Your task to perform on an android device: snooze an email in the gmail app Image 0: 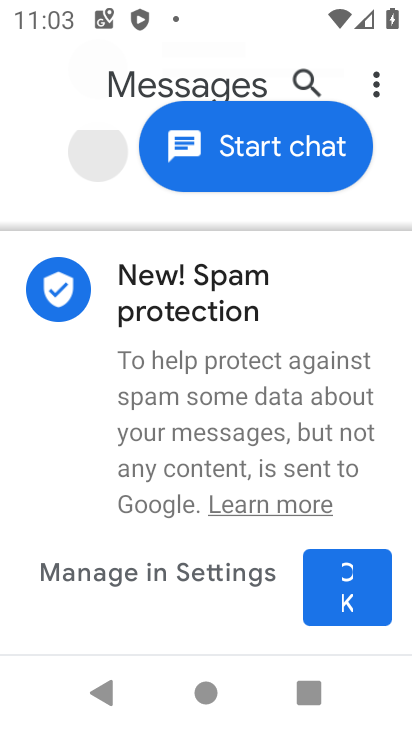
Step 0: press home button
Your task to perform on an android device: snooze an email in the gmail app Image 1: 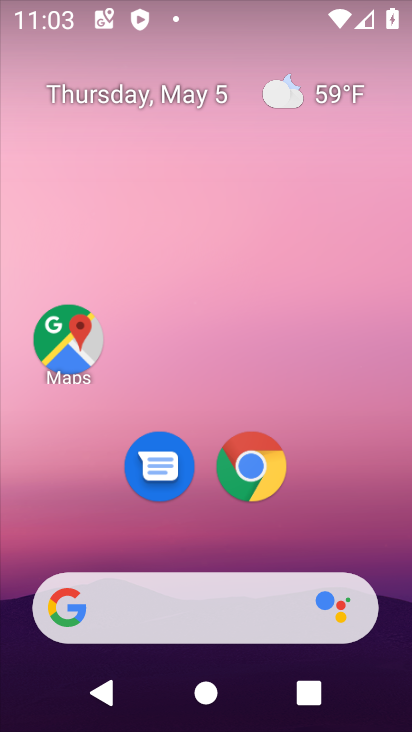
Step 1: drag from (342, 490) to (284, 128)
Your task to perform on an android device: snooze an email in the gmail app Image 2: 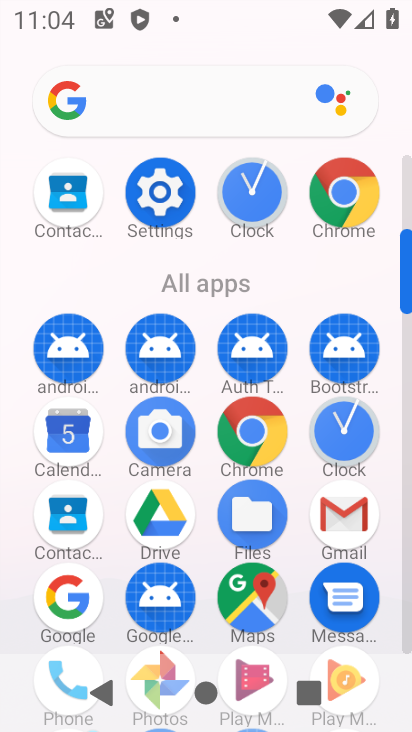
Step 2: click (219, 591)
Your task to perform on an android device: snooze an email in the gmail app Image 3: 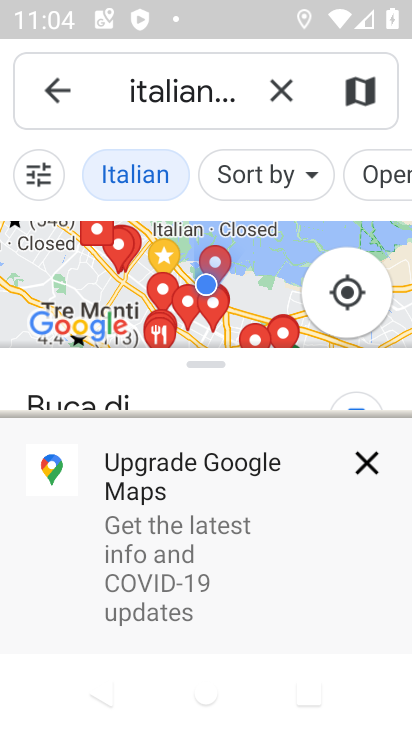
Step 3: press home button
Your task to perform on an android device: snooze an email in the gmail app Image 4: 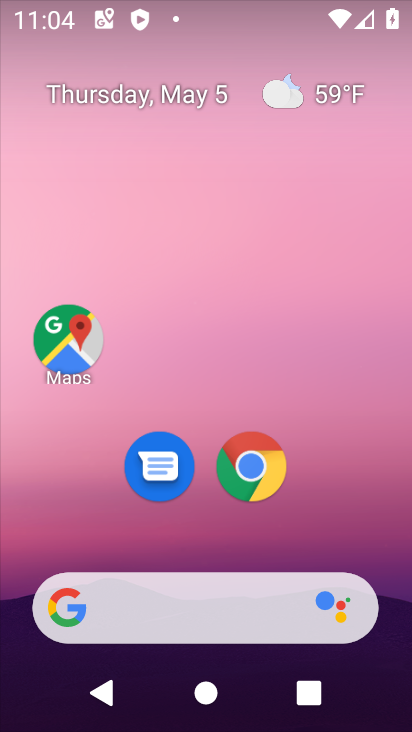
Step 4: drag from (319, 563) to (286, 399)
Your task to perform on an android device: snooze an email in the gmail app Image 5: 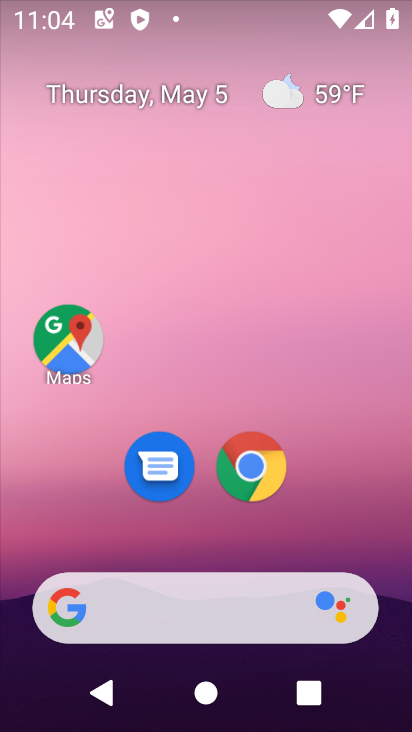
Step 5: drag from (281, 541) to (261, 86)
Your task to perform on an android device: snooze an email in the gmail app Image 6: 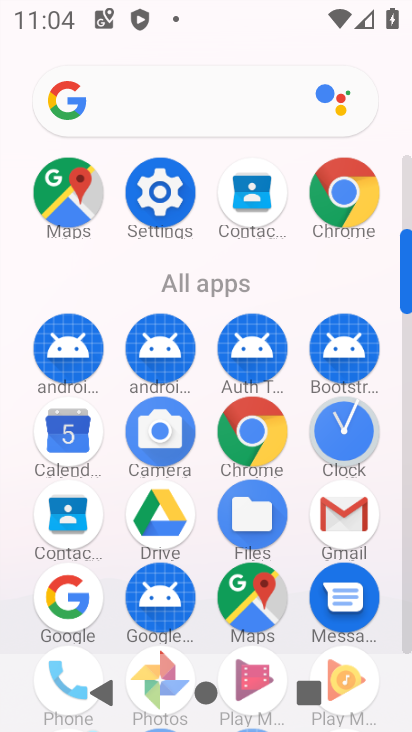
Step 6: drag from (193, 310) to (205, 102)
Your task to perform on an android device: snooze an email in the gmail app Image 7: 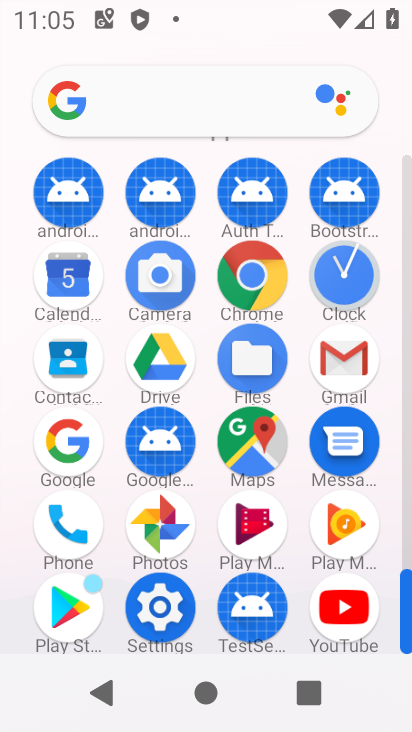
Step 7: click (335, 354)
Your task to perform on an android device: snooze an email in the gmail app Image 8: 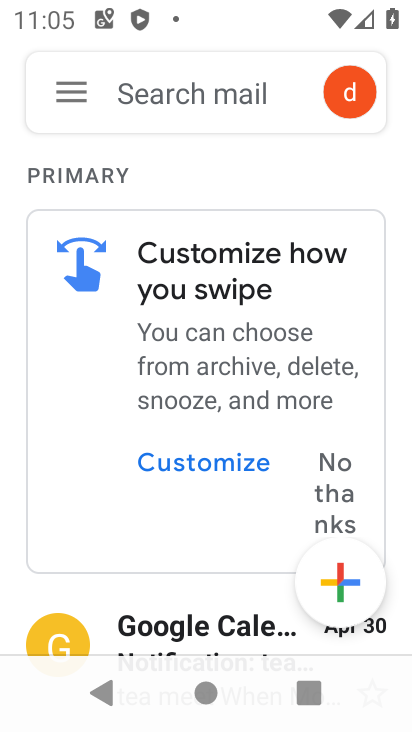
Step 8: drag from (216, 496) to (190, 44)
Your task to perform on an android device: snooze an email in the gmail app Image 9: 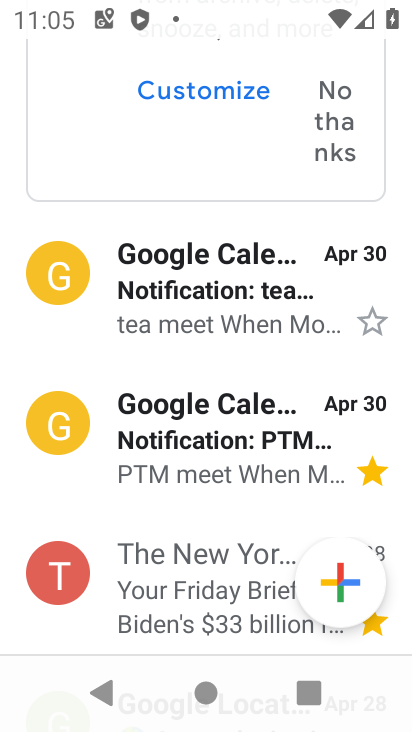
Step 9: click (188, 581)
Your task to perform on an android device: snooze an email in the gmail app Image 10: 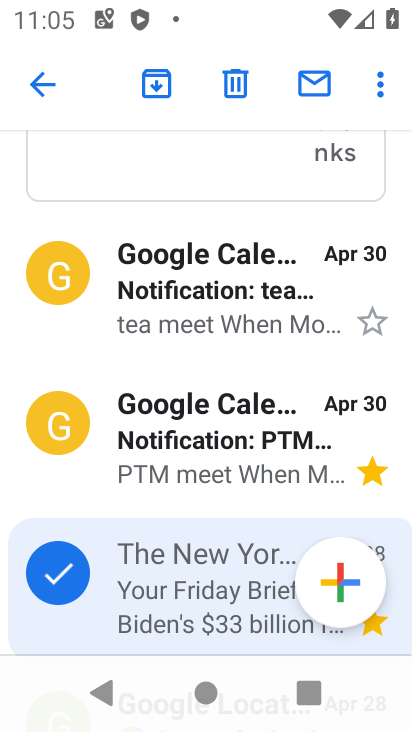
Step 10: click (379, 99)
Your task to perform on an android device: snooze an email in the gmail app Image 11: 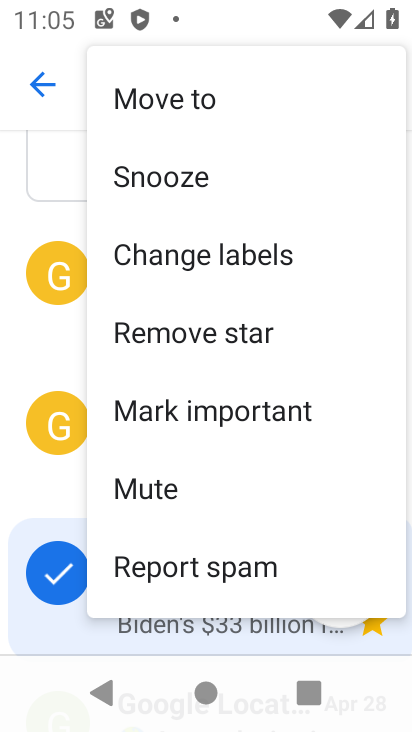
Step 11: click (247, 172)
Your task to perform on an android device: snooze an email in the gmail app Image 12: 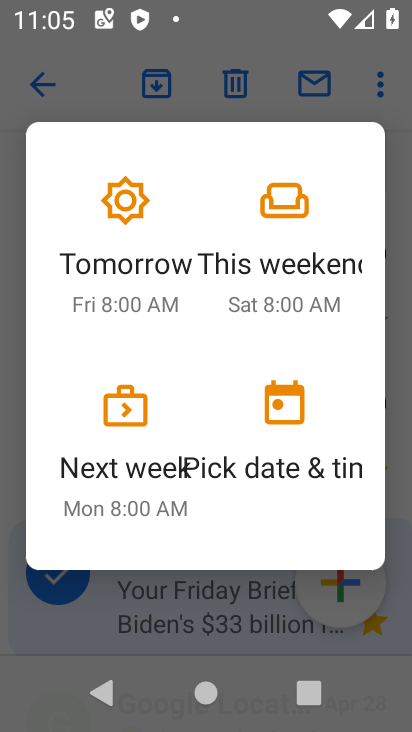
Step 12: click (258, 404)
Your task to perform on an android device: snooze an email in the gmail app Image 13: 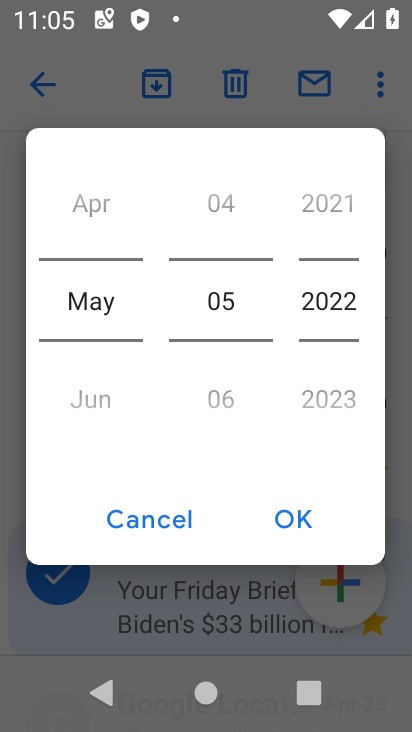
Step 13: click (276, 515)
Your task to perform on an android device: snooze an email in the gmail app Image 14: 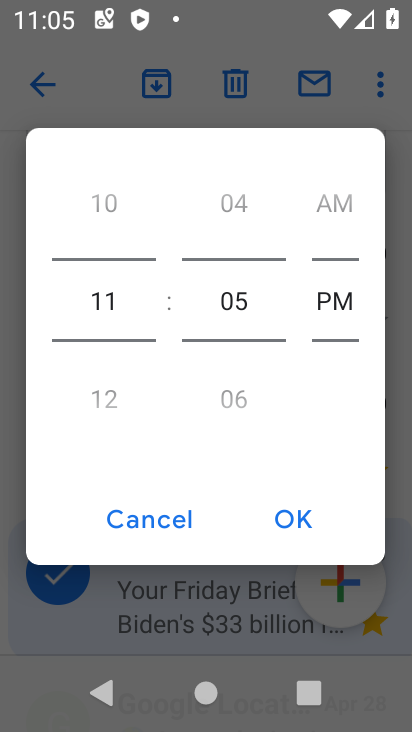
Step 14: click (288, 512)
Your task to perform on an android device: snooze an email in the gmail app Image 15: 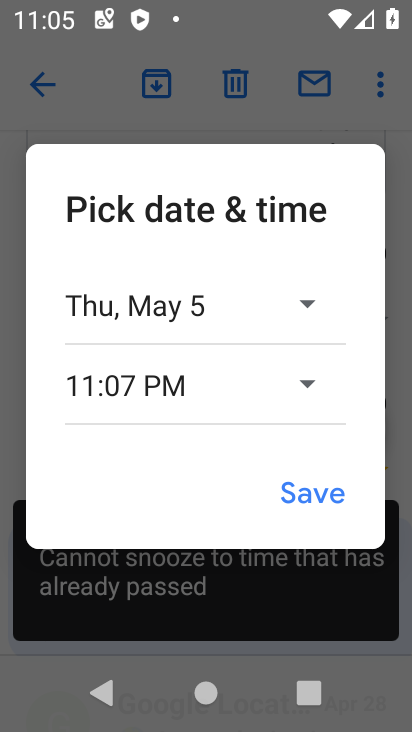
Step 15: click (328, 474)
Your task to perform on an android device: snooze an email in the gmail app Image 16: 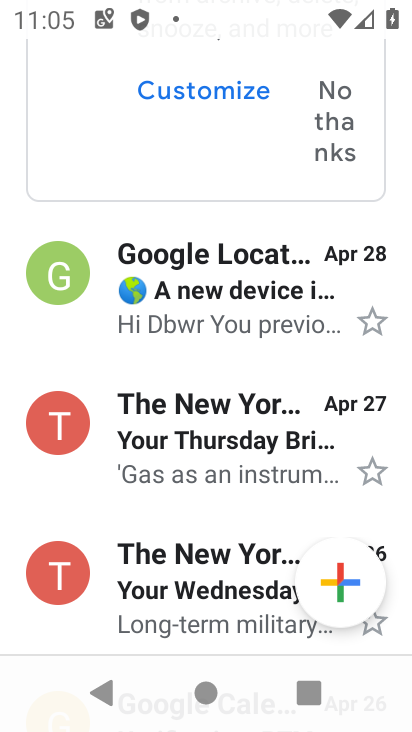
Step 16: task complete